Your task to perform on an android device: Go to location settings Image 0: 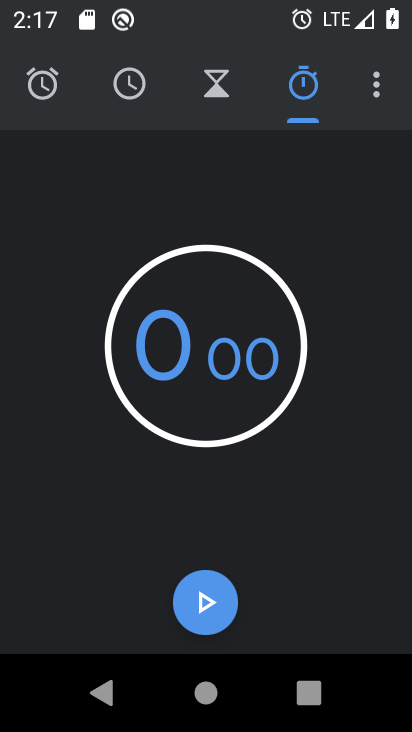
Step 0: press home button
Your task to perform on an android device: Go to location settings Image 1: 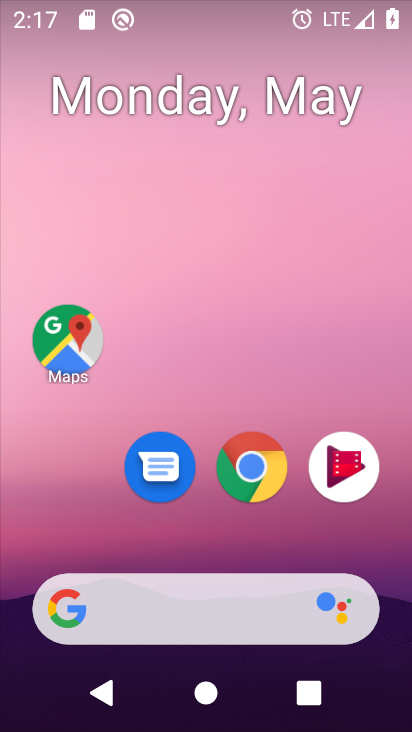
Step 1: drag from (235, 449) to (284, 201)
Your task to perform on an android device: Go to location settings Image 2: 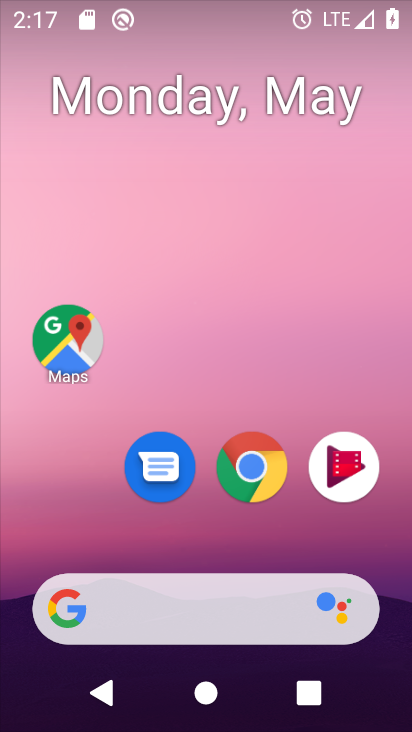
Step 2: drag from (182, 531) to (252, 199)
Your task to perform on an android device: Go to location settings Image 3: 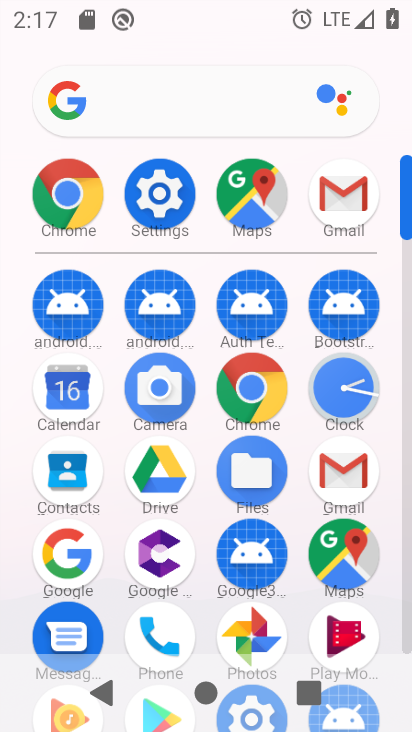
Step 3: click (165, 180)
Your task to perform on an android device: Go to location settings Image 4: 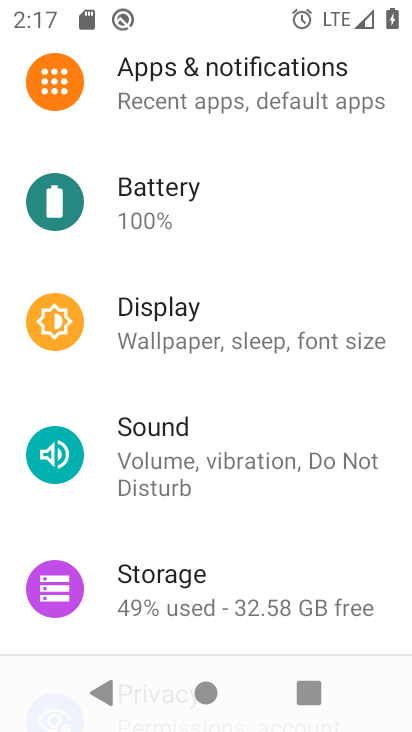
Step 4: drag from (186, 571) to (236, 338)
Your task to perform on an android device: Go to location settings Image 5: 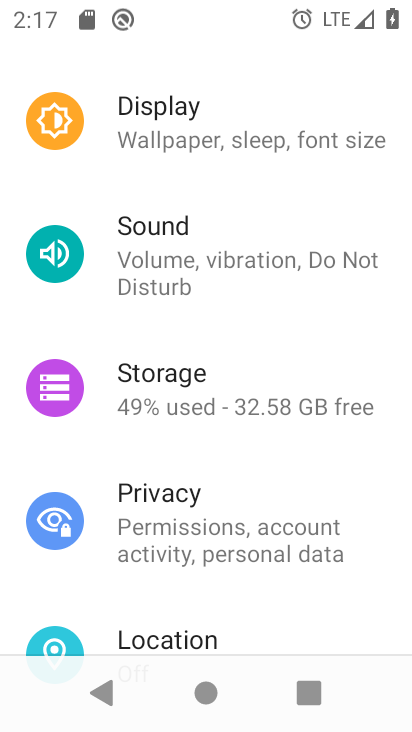
Step 5: drag from (176, 528) to (288, 244)
Your task to perform on an android device: Go to location settings Image 6: 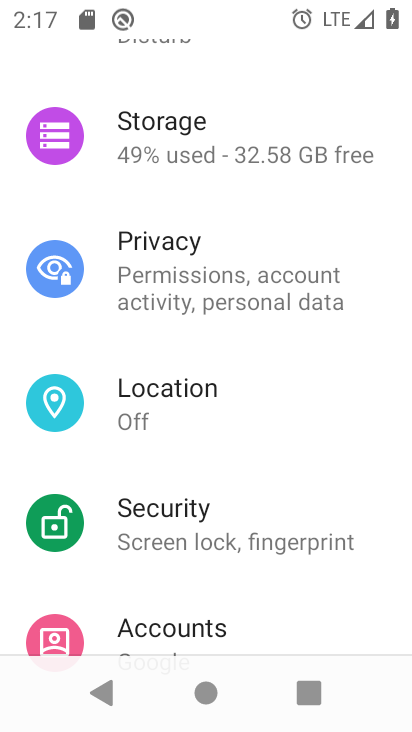
Step 6: click (214, 402)
Your task to perform on an android device: Go to location settings Image 7: 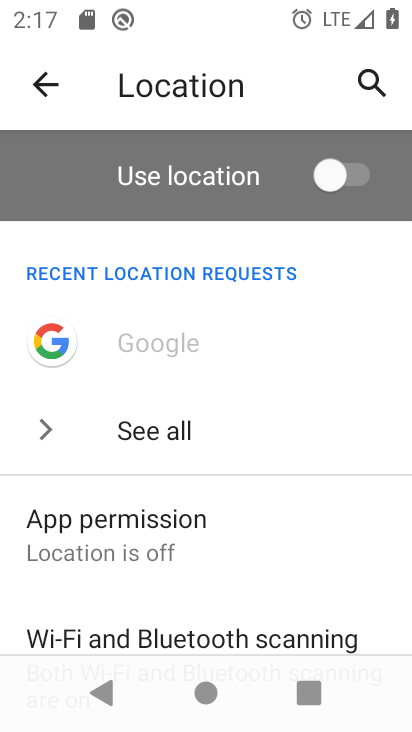
Step 7: task complete